Your task to perform on an android device: Open the phone app and click the voicemail tab. Image 0: 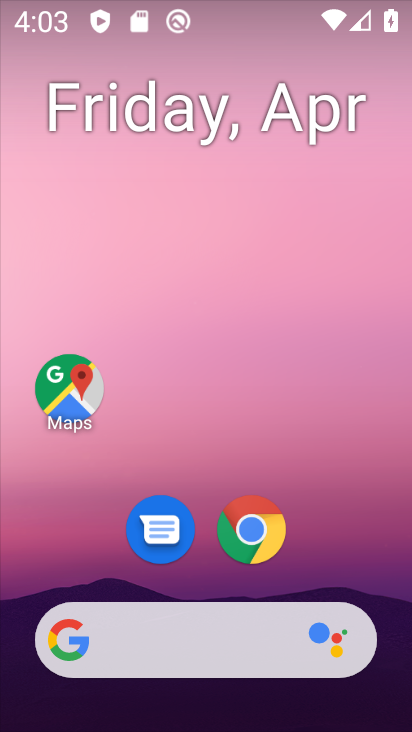
Step 0: drag from (210, 588) to (220, 98)
Your task to perform on an android device: Open the phone app and click the voicemail tab. Image 1: 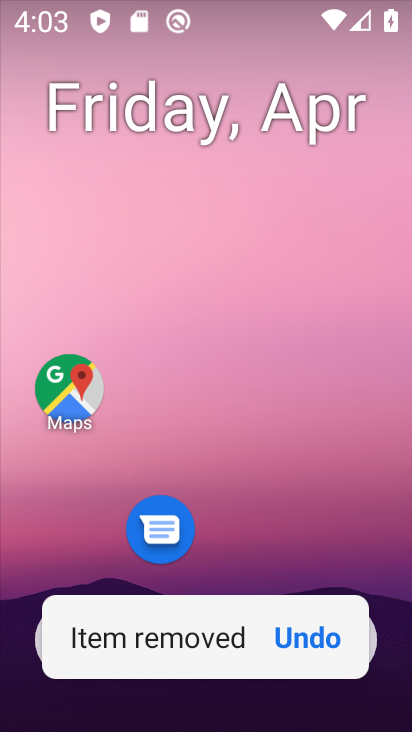
Step 1: click (298, 640)
Your task to perform on an android device: Open the phone app and click the voicemail tab. Image 2: 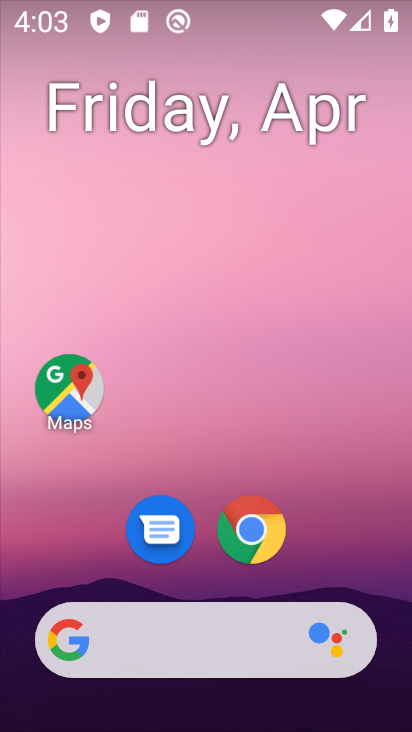
Step 2: drag from (205, 572) to (205, 214)
Your task to perform on an android device: Open the phone app and click the voicemail tab. Image 3: 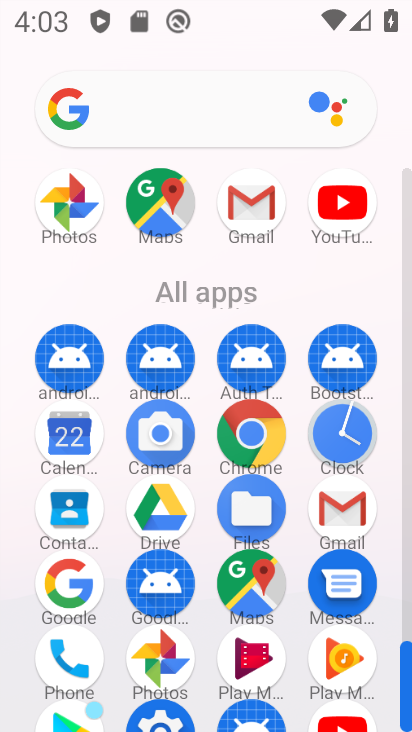
Step 3: drag from (202, 607) to (194, 164)
Your task to perform on an android device: Open the phone app and click the voicemail tab. Image 4: 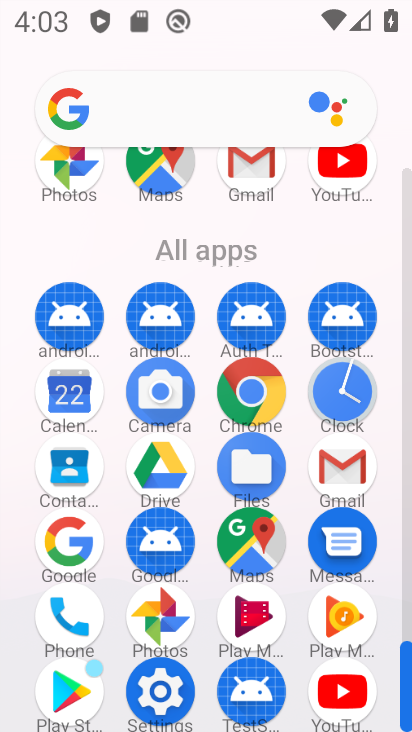
Step 4: click (69, 611)
Your task to perform on an android device: Open the phone app and click the voicemail tab. Image 5: 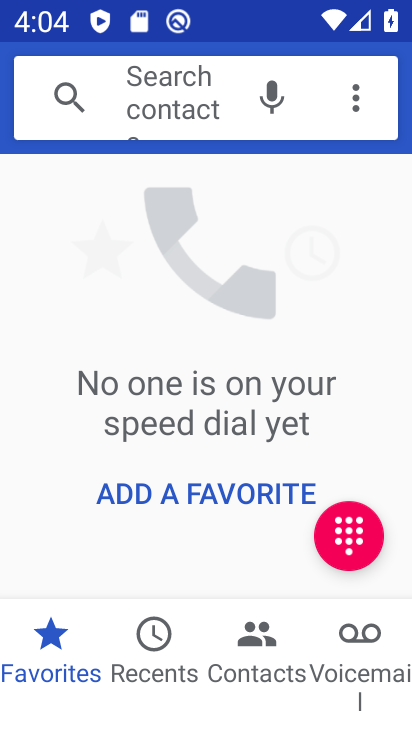
Step 5: click (355, 627)
Your task to perform on an android device: Open the phone app and click the voicemail tab. Image 6: 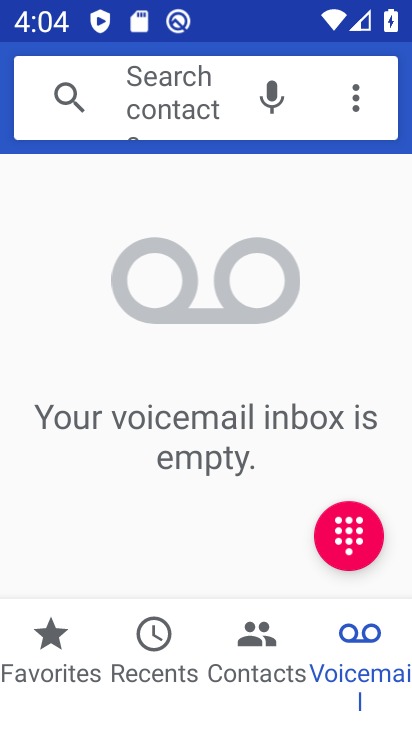
Step 6: task complete